Your task to perform on an android device: open app "Flipkart Online Shopping App" (install if not already installed) Image 0: 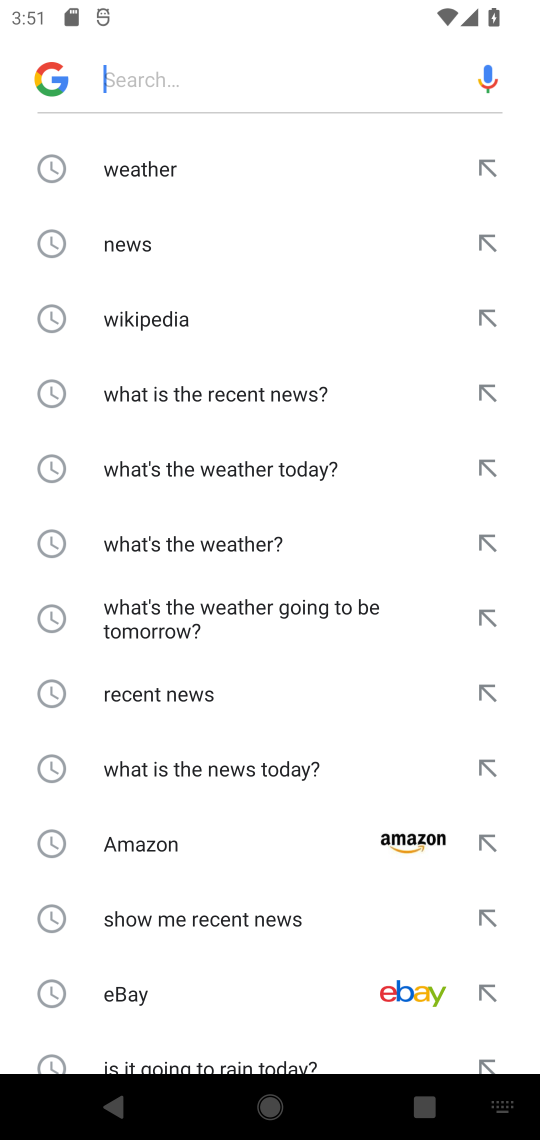
Step 0: press home button
Your task to perform on an android device: open app "Flipkart Online Shopping App" (install if not already installed) Image 1: 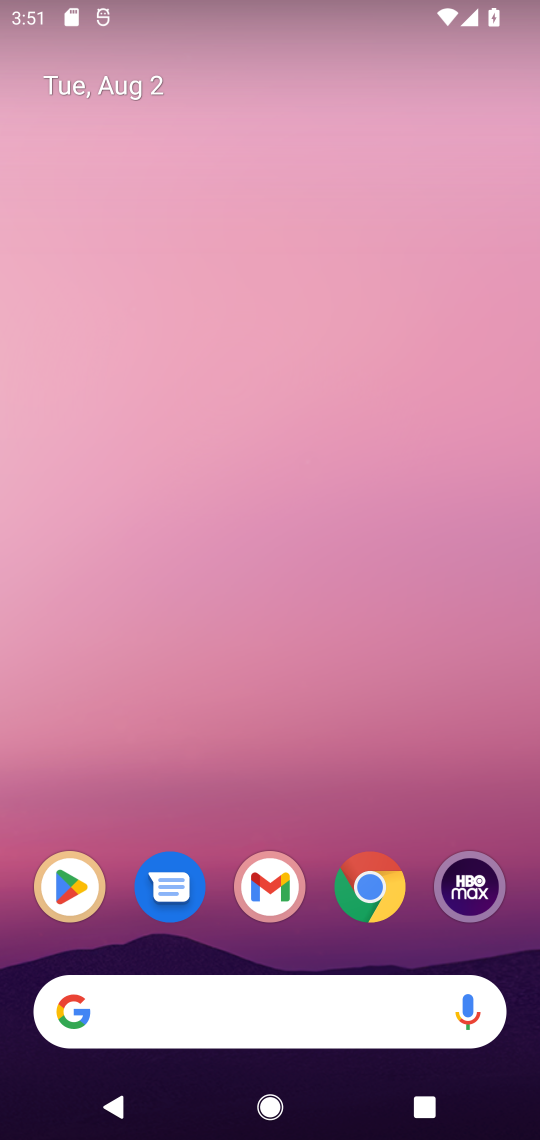
Step 1: click (74, 884)
Your task to perform on an android device: open app "Flipkart Online Shopping App" (install if not already installed) Image 2: 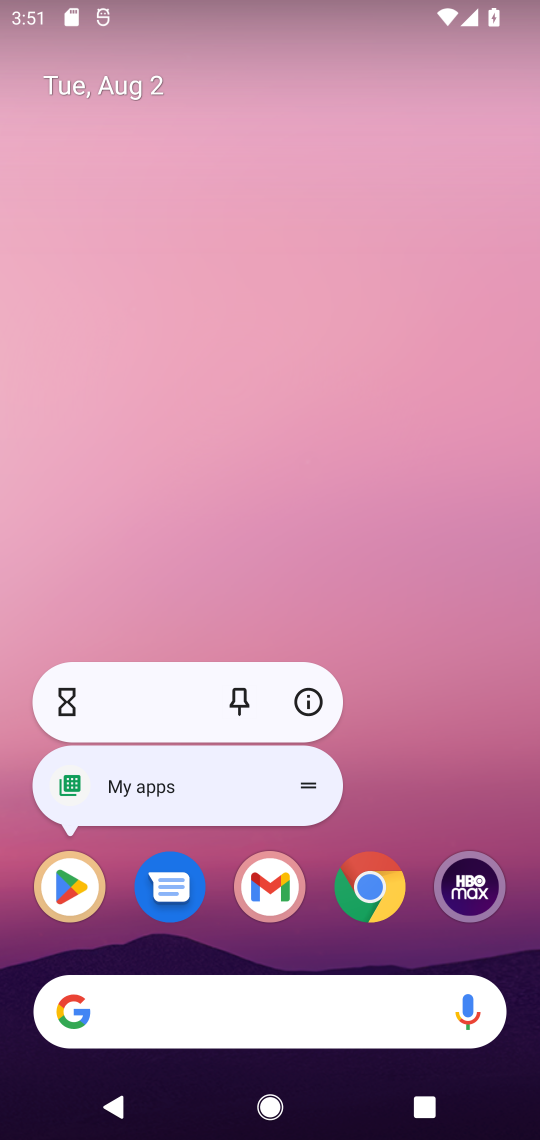
Step 2: click (62, 904)
Your task to perform on an android device: open app "Flipkart Online Shopping App" (install if not already installed) Image 3: 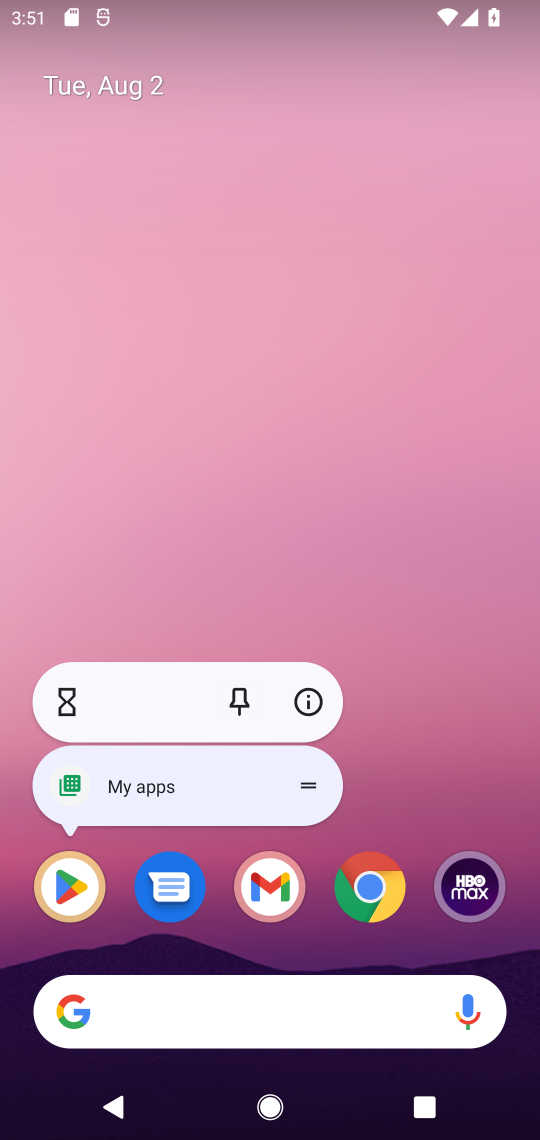
Step 3: click (81, 876)
Your task to perform on an android device: open app "Flipkart Online Shopping App" (install if not already installed) Image 4: 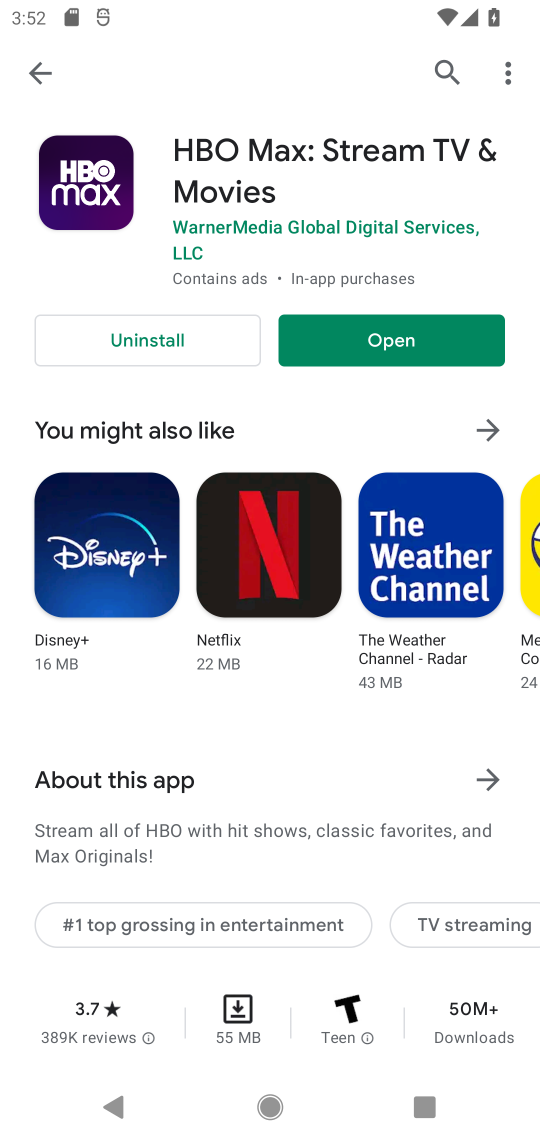
Step 4: click (42, 78)
Your task to perform on an android device: open app "Flipkart Online Shopping App" (install if not already installed) Image 5: 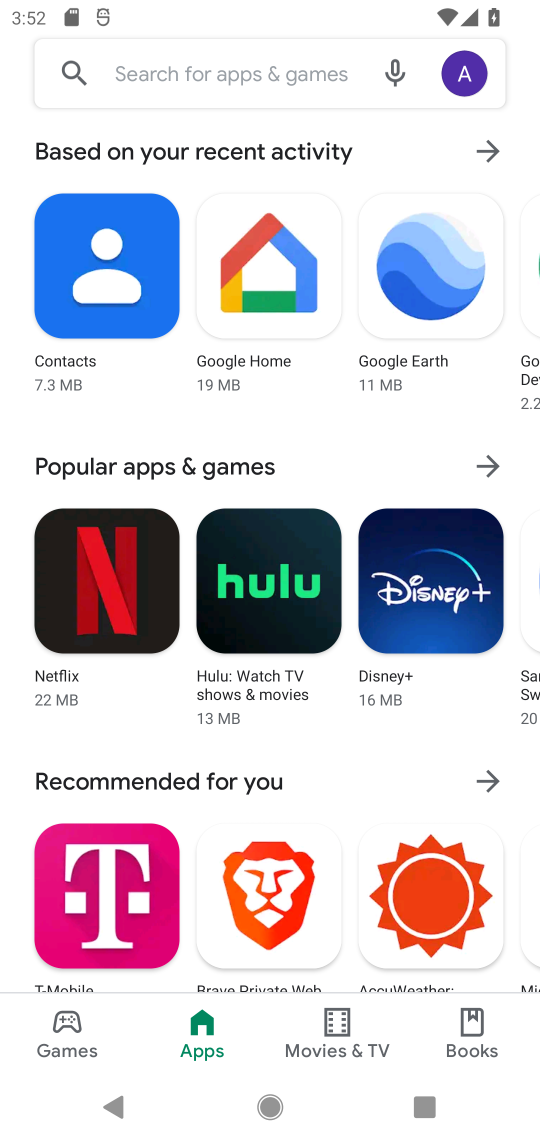
Step 5: click (128, 73)
Your task to perform on an android device: open app "Flipkart Online Shopping App" (install if not already installed) Image 6: 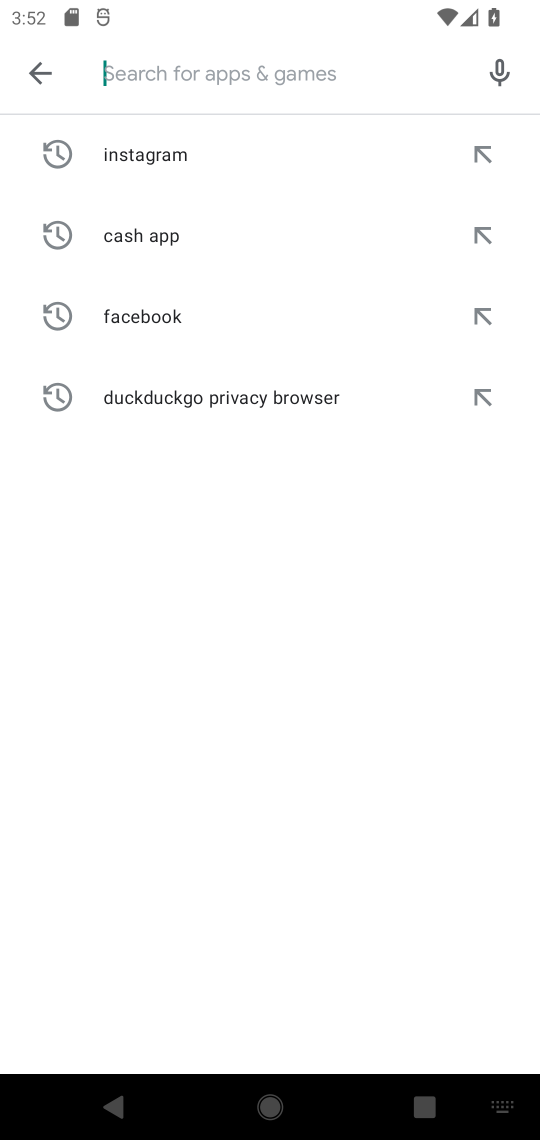
Step 6: type "Flipkart Online Shopping App"
Your task to perform on an android device: open app "Flipkart Online Shopping App" (install if not already installed) Image 7: 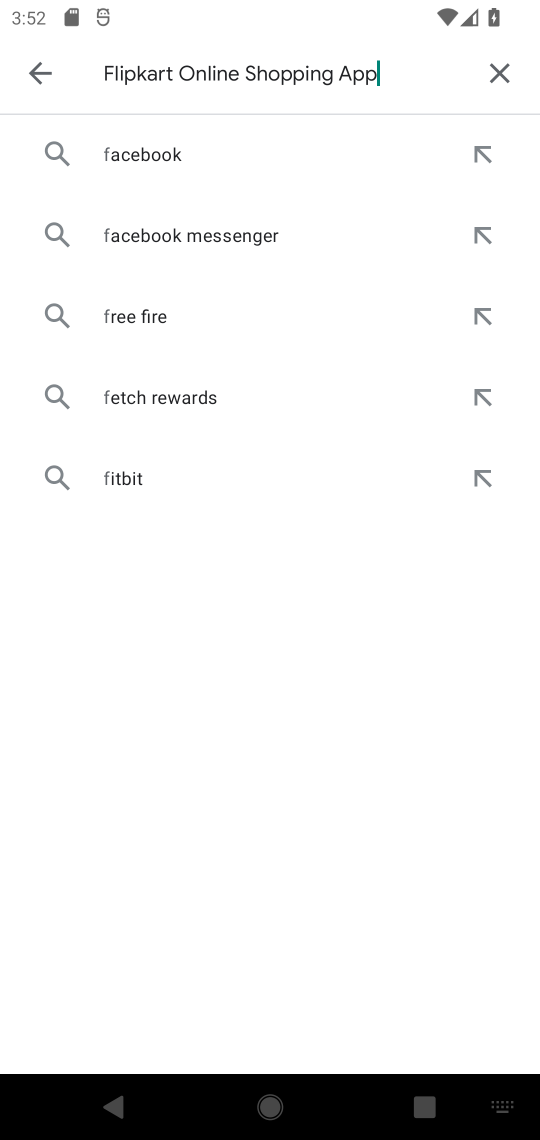
Step 7: type ""
Your task to perform on an android device: open app "Flipkart Online Shopping App" (install if not already installed) Image 8: 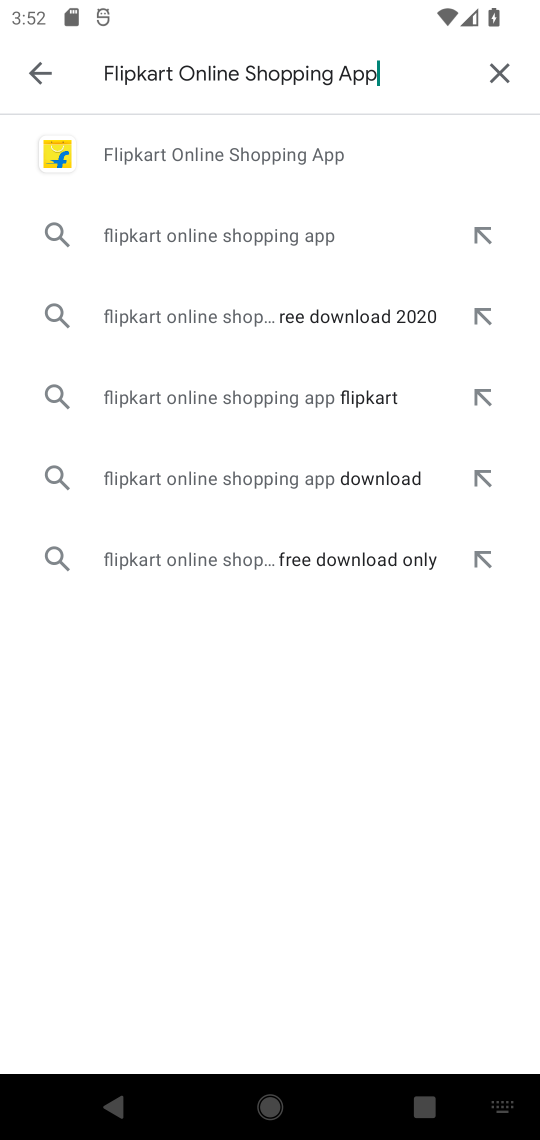
Step 8: click (268, 148)
Your task to perform on an android device: open app "Flipkart Online Shopping App" (install if not already installed) Image 9: 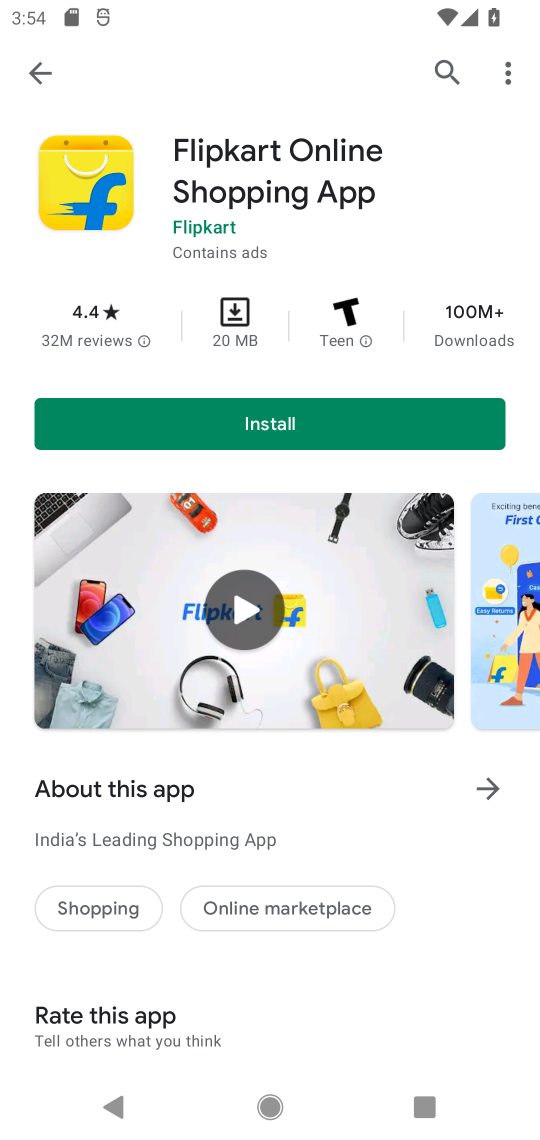
Step 9: click (293, 401)
Your task to perform on an android device: open app "Flipkart Online Shopping App" (install if not already installed) Image 10: 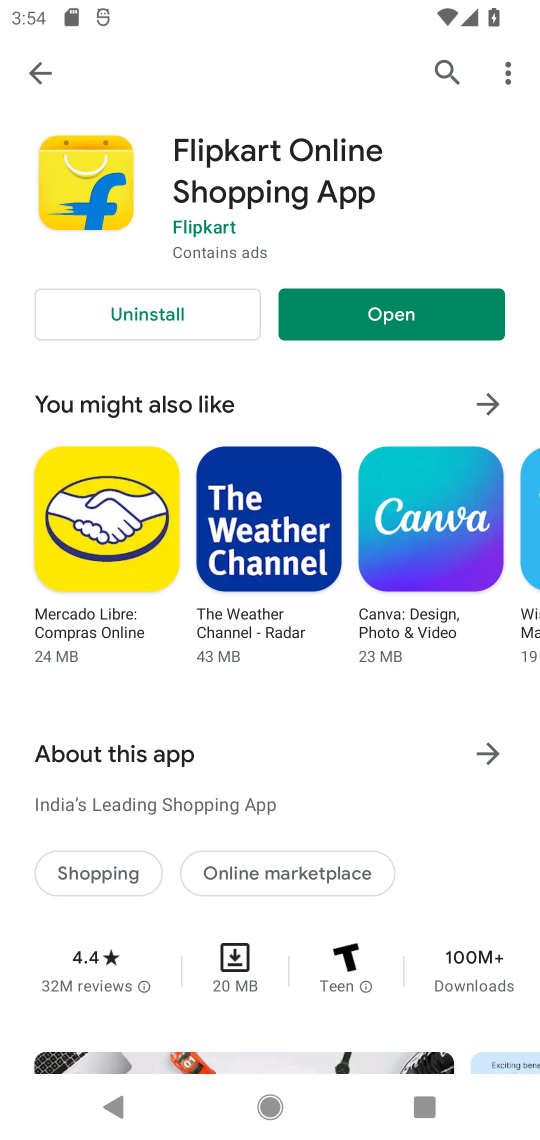
Step 10: task complete